Your task to perform on an android device: Open calendar and show me the first week of next month Image 0: 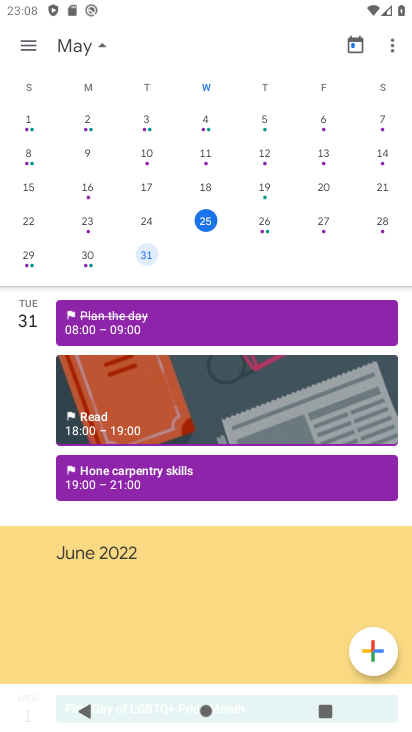
Step 0: press home button
Your task to perform on an android device: Open calendar and show me the first week of next month Image 1: 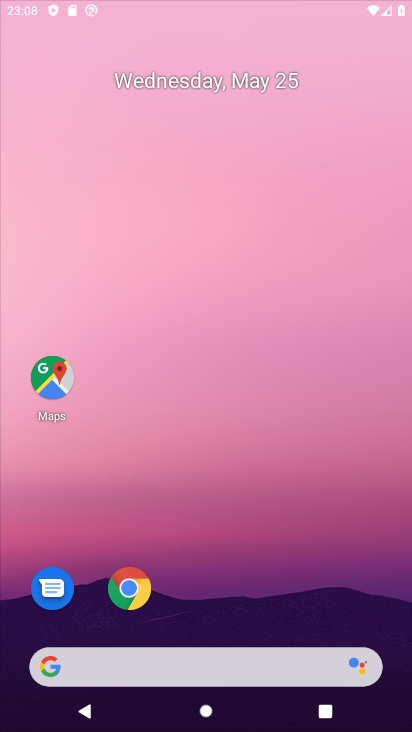
Step 1: task complete